Your task to perform on an android device: Open settings Image 0: 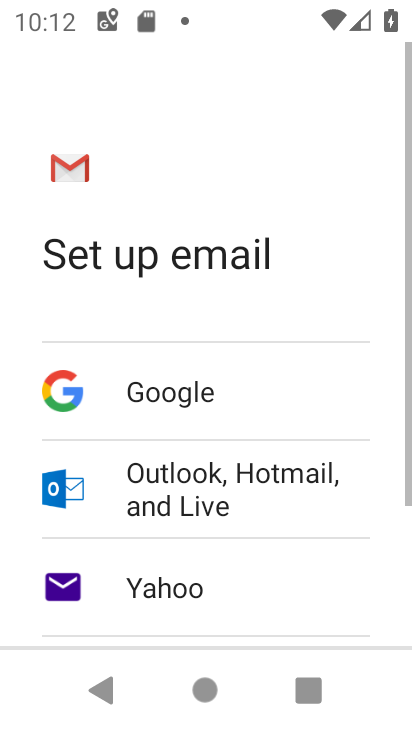
Step 0: press home button
Your task to perform on an android device: Open settings Image 1: 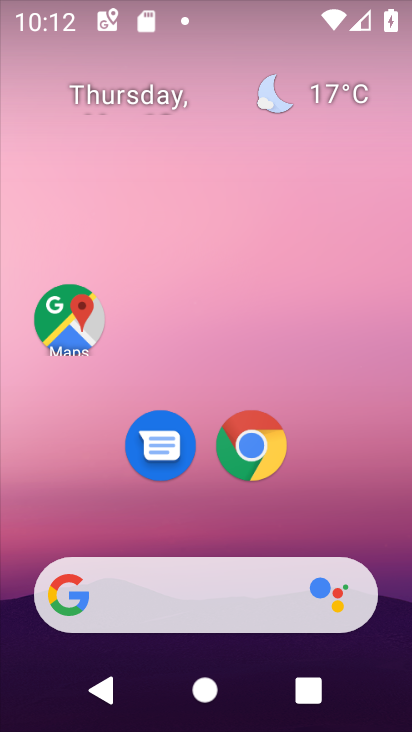
Step 1: drag from (274, 507) to (258, 208)
Your task to perform on an android device: Open settings Image 2: 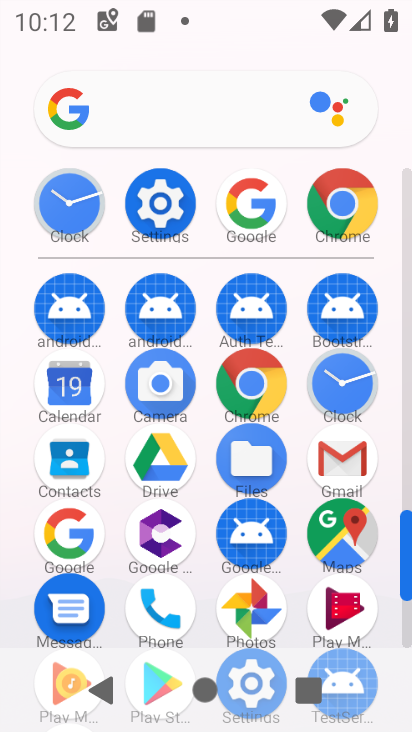
Step 2: click (152, 202)
Your task to perform on an android device: Open settings Image 3: 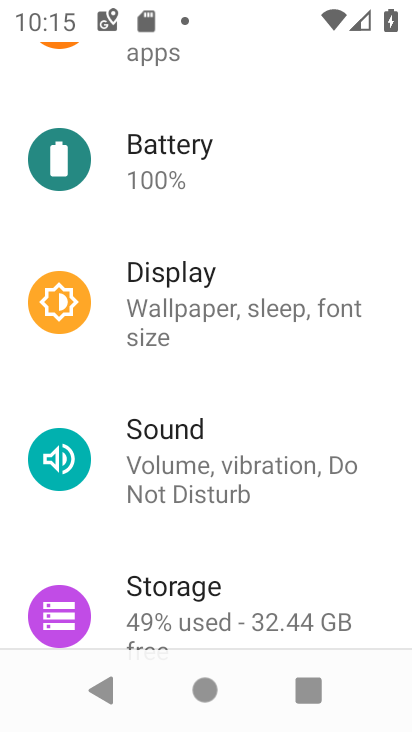
Step 3: task complete